Your task to perform on an android device: What's the news this month? Image 0: 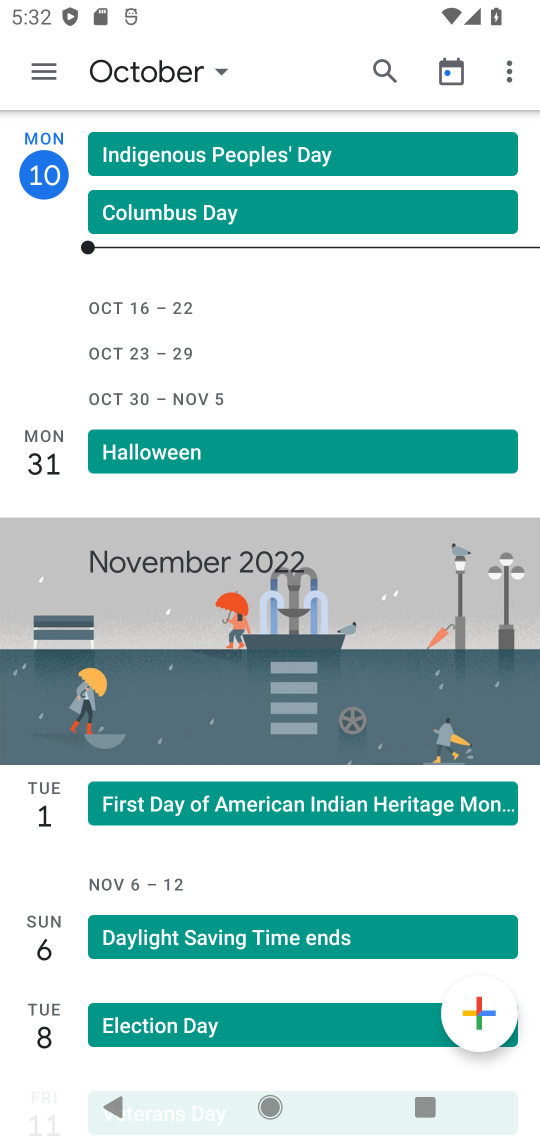
Step 0: press home button
Your task to perform on an android device: What's the news this month? Image 1: 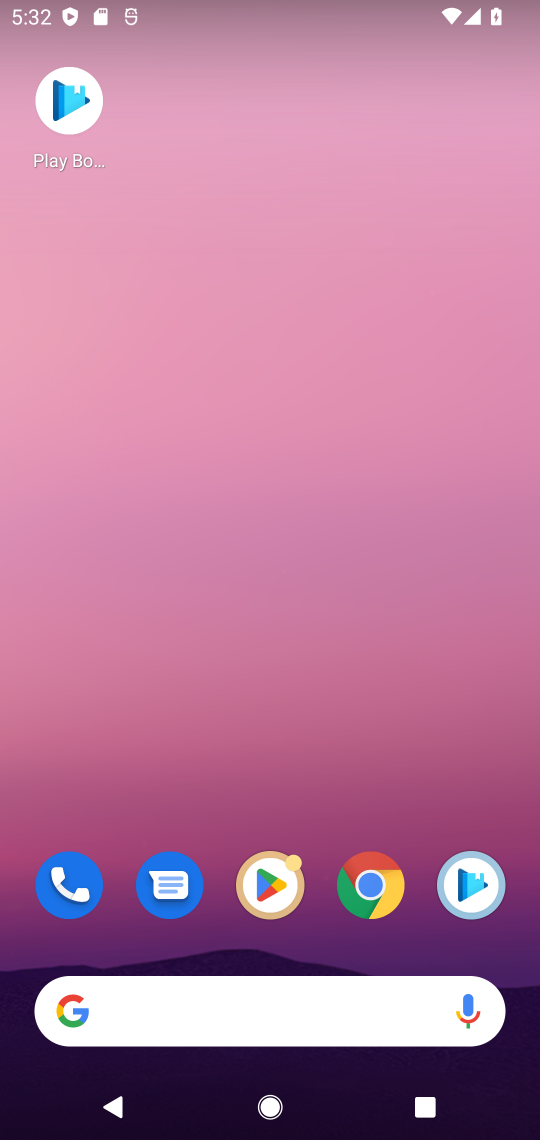
Step 1: click (384, 905)
Your task to perform on an android device: What's the news this month? Image 2: 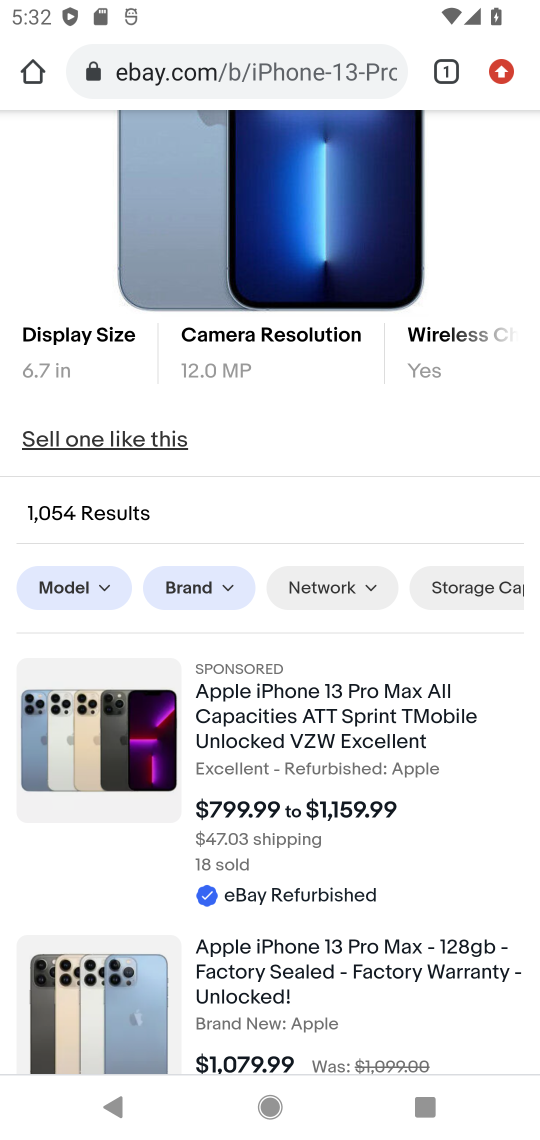
Step 2: click (254, 73)
Your task to perform on an android device: What's the news this month? Image 3: 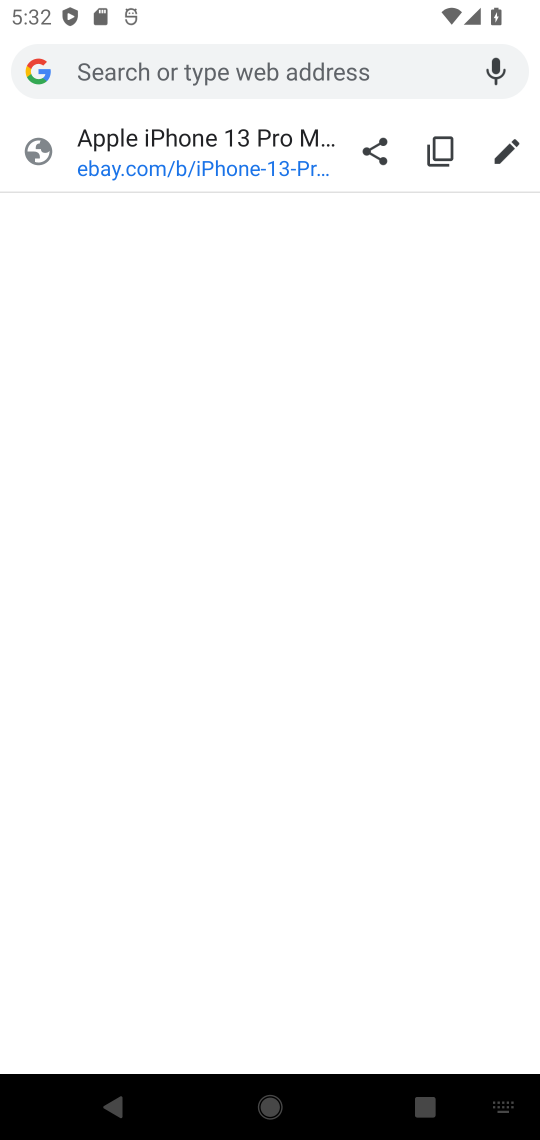
Step 3: type "news this month"
Your task to perform on an android device: What's the news this month? Image 4: 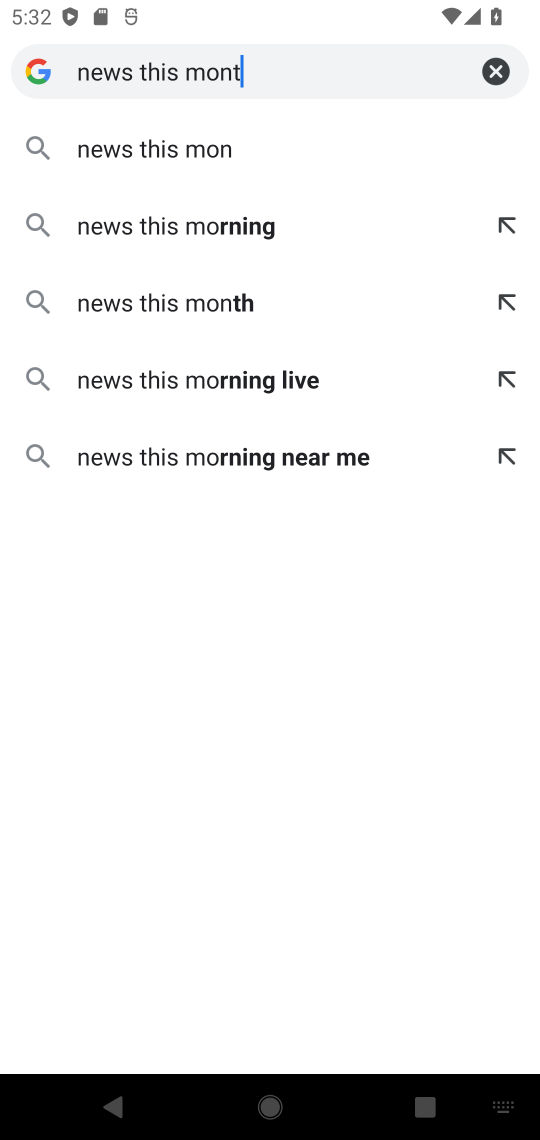
Step 4: type ""
Your task to perform on an android device: What's the news this month? Image 5: 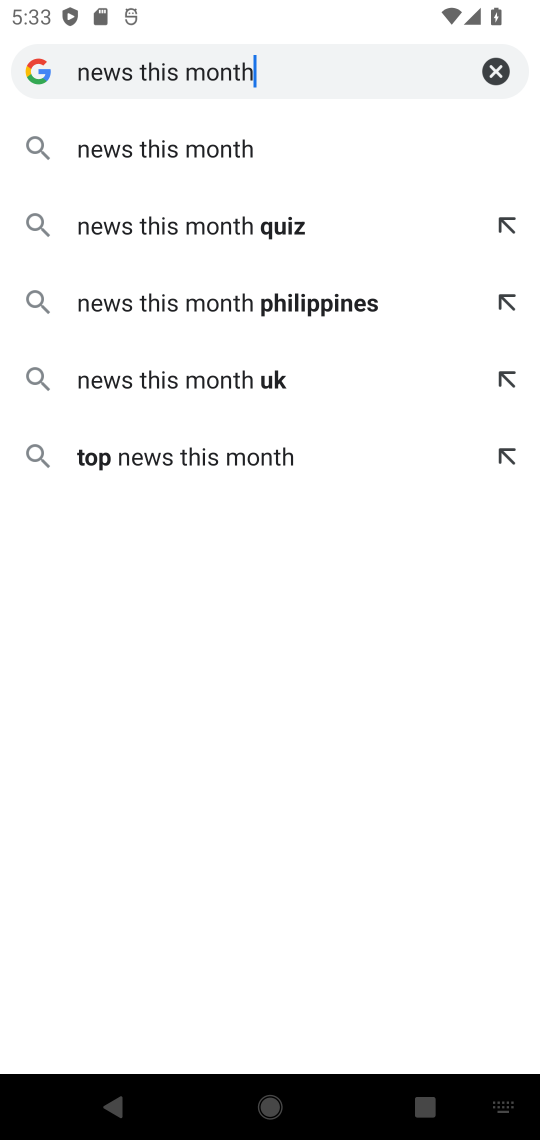
Step 5: click (162, 151)
Your task to perform on an android device: What's the news this month? Image 6: 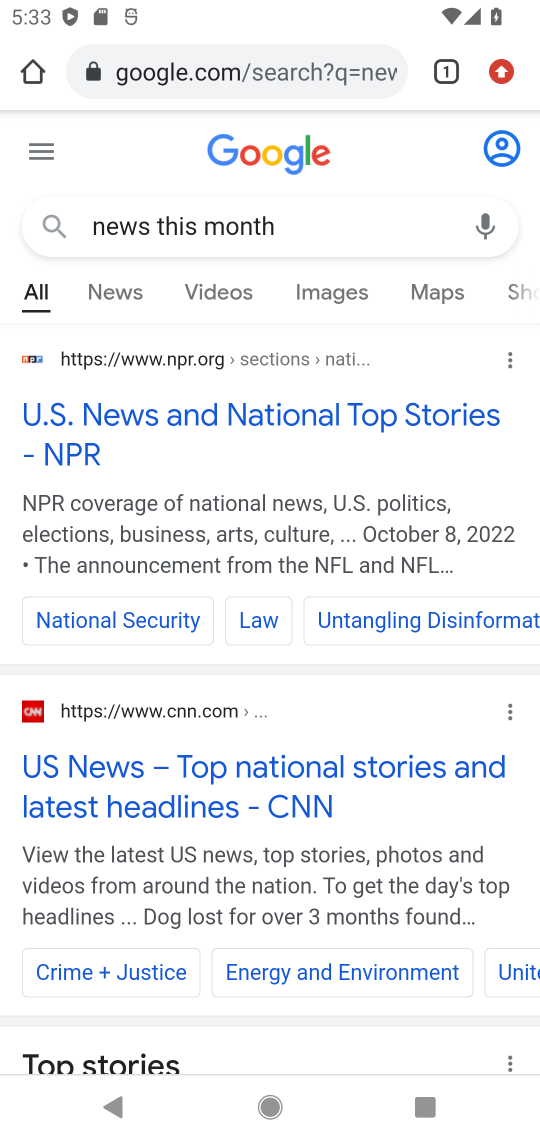
Step 6: click (114, 289)
Your task to perform on an android device: What's the news this month? Image 7: 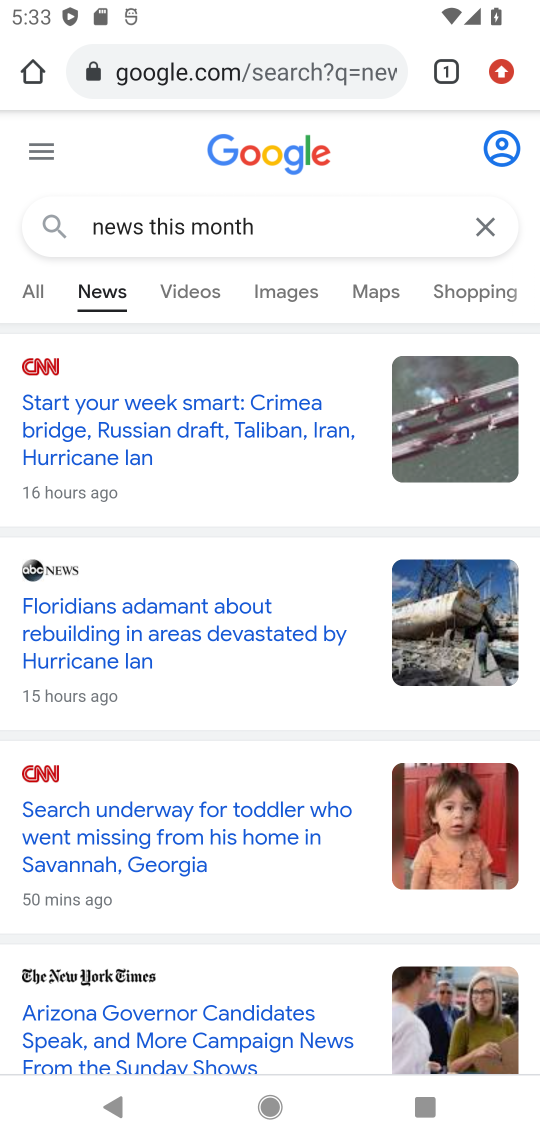
Step 7: task complete